Your task to perform on an android device: turn on the 12-hour format for clock Image 0: 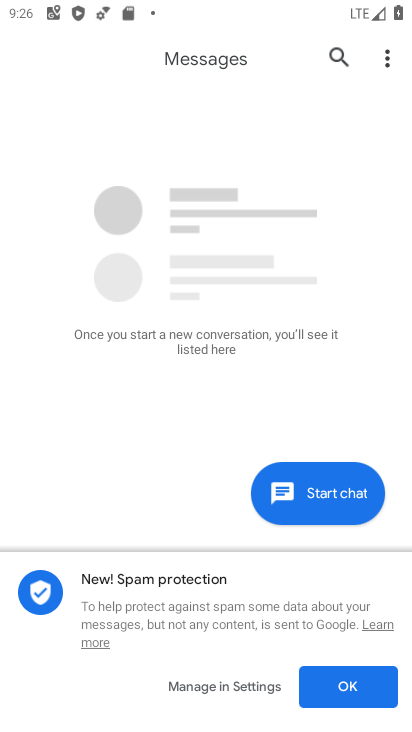
Step 0: press home button
Your task to perform on an android device: turn on the 12-hour format for clock Image 1: 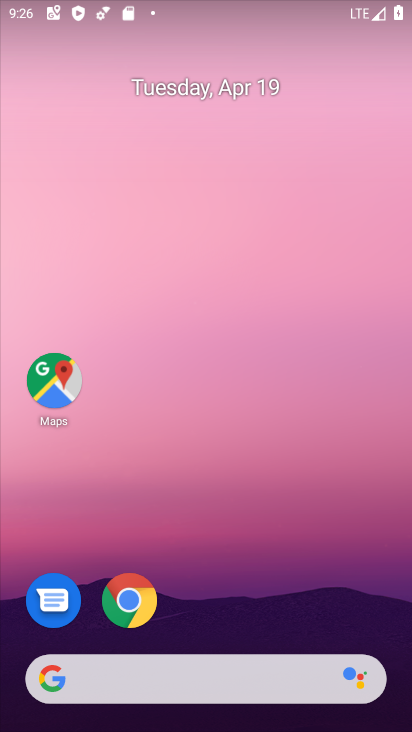
Step 1: drag from (343, 613) to (307, 149)
Your task to perform on an android device: turn on the 12-hour format for clock Image 2: 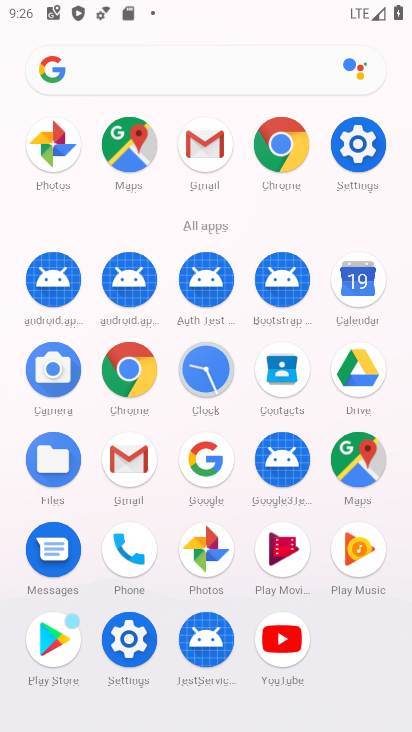
Step 2: click (188, 372)
Your task to perform on an android device: turn on the 12-hour format for clock Image 3: 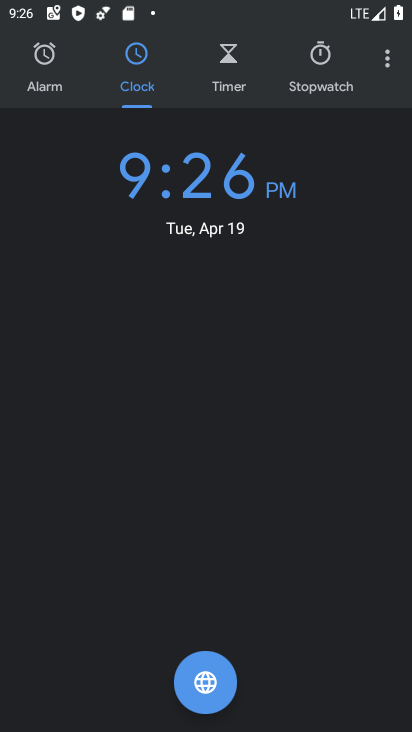
Step 3: click (388, 78)
Your task to perform on an android device: turn on the 12-hour format for clock Image 4: 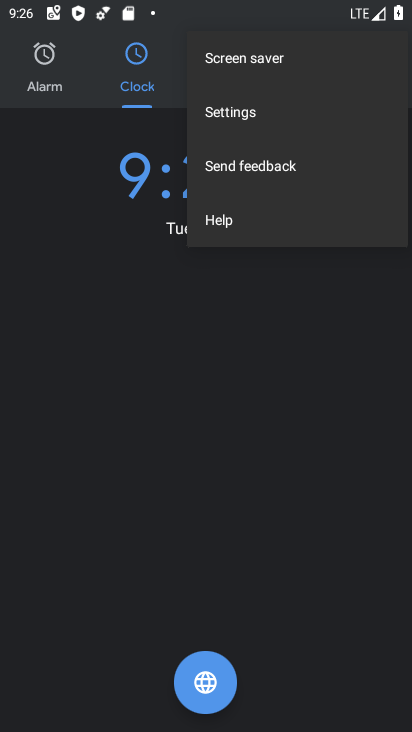
Step 4: click (367, 113)
Your task to perform on an android device: turn on the 12-hour format for clock Image 5: 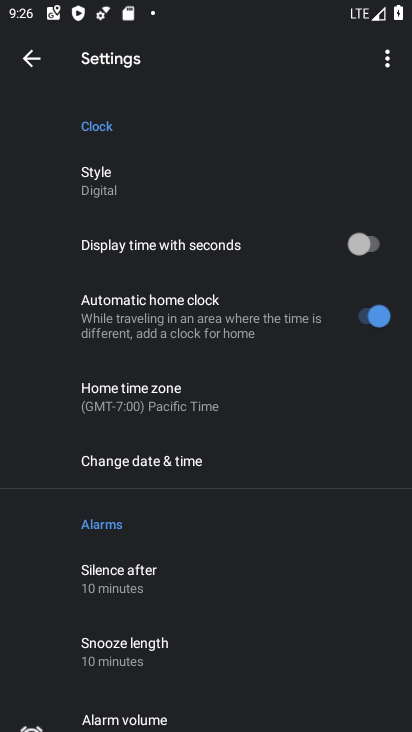
Step 5: click (302, 454)
Your task to perform on an android device: turn on the 12-hour format for clock Image 6: 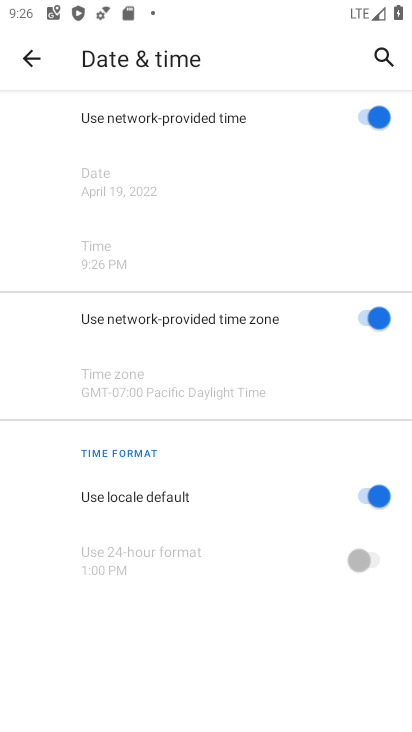
Step 6: task complete